Your task to perform on an android device: turn on data saver in the chrome app Image 0: 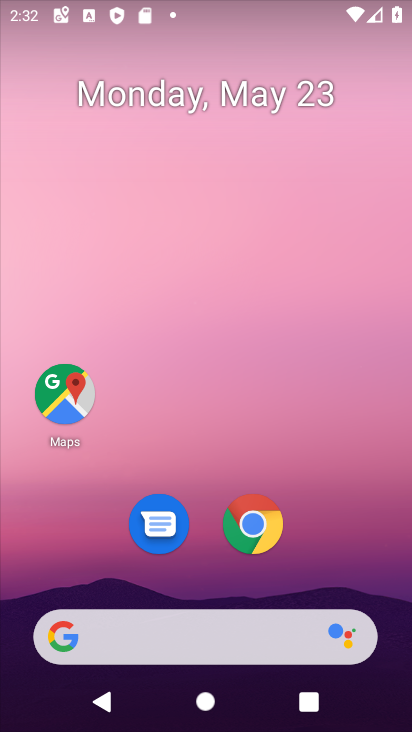
Step 0: click (265, 523)
Your task to perform on an android device: turn on data saver in the chrome app Image 1: 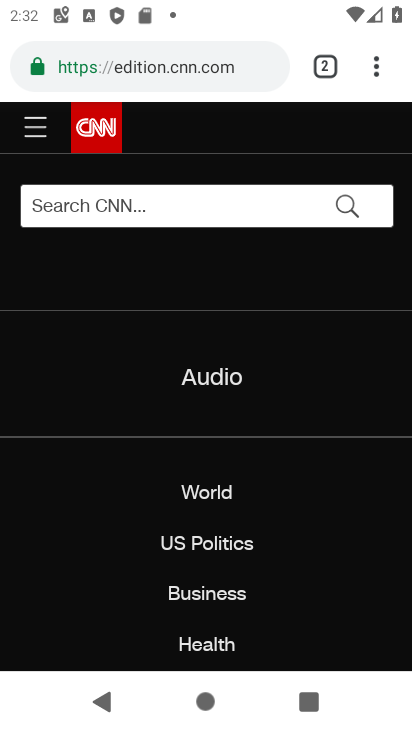
Step 1: click (374, 61)
Your task to perform on an android device: turn on data saver in the chrome app Image 2: 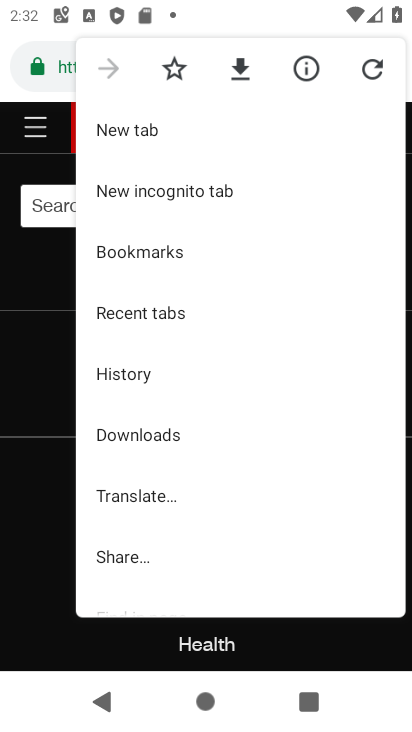
Step 2: drag from (259, 463) to (275, 191)
Your task to perform on an android device: turn on data saver in the chrome app Image 3: 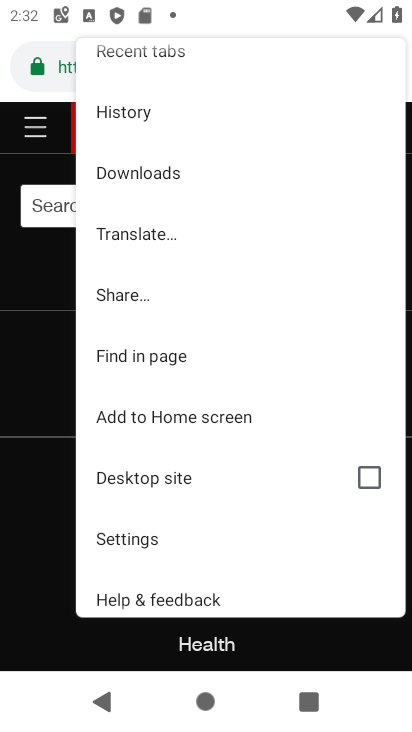
Step 3: click (161, 542)
Your task to perform on an android device: turn on data saver in the chrome app Image 4: 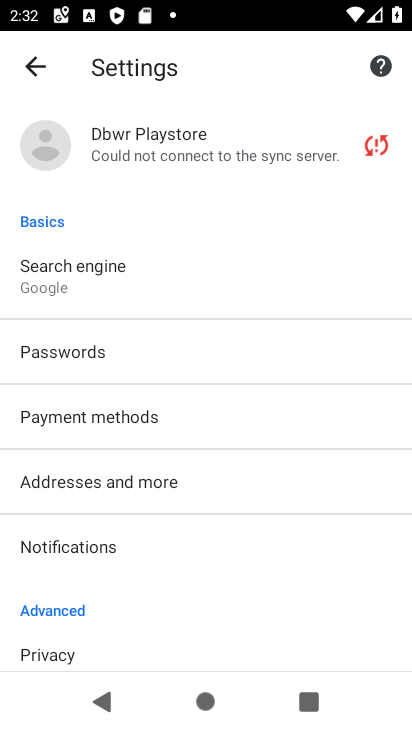
Step 4: drag from (225, 559) to (251, 134)
Your task to perform on an android device: turn on data saver in the chrome app Image 5: 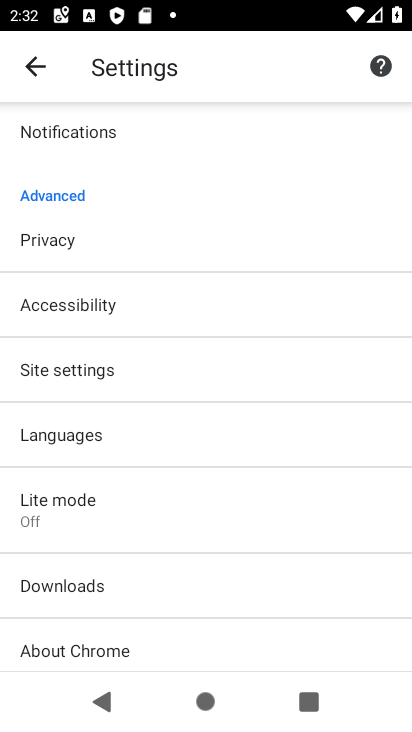
Step 5: click (149, 527)
Your task to perform on an android device: turn on data saver in the chrome app Image 6: 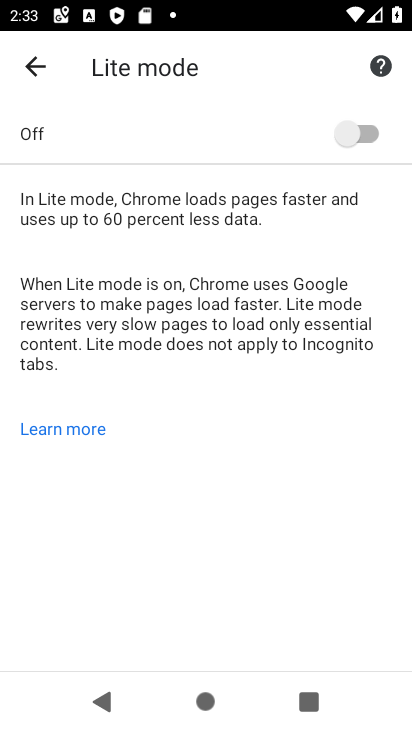
Step 6: click (368, 127)
Your task to perform on an android device: turn on data saver in the chrome app Image 7: 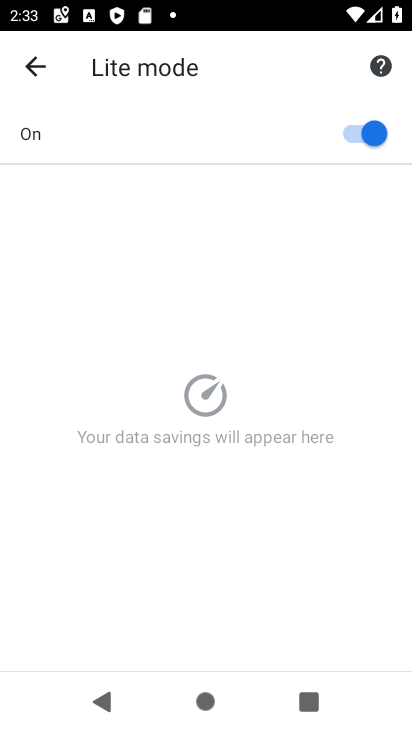
Step 7: task complete